Your task to perform on an android device: turn pop-ups off in chrome Image 0: 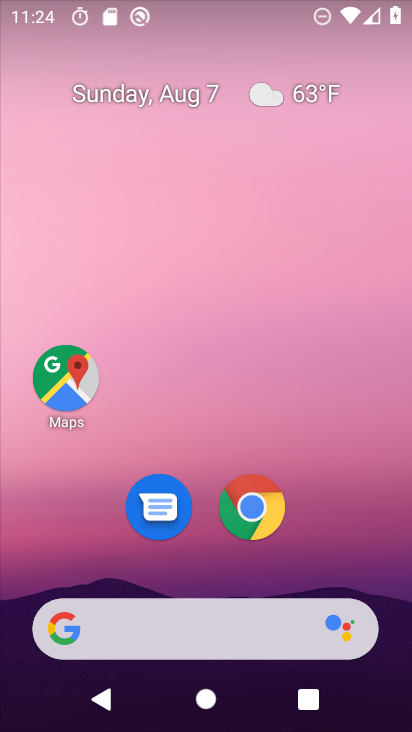
Step 0: drag from (375, 507) to (286, 53)
Your task to perform on an android device: turn pop-ups off in chrome Image 1: 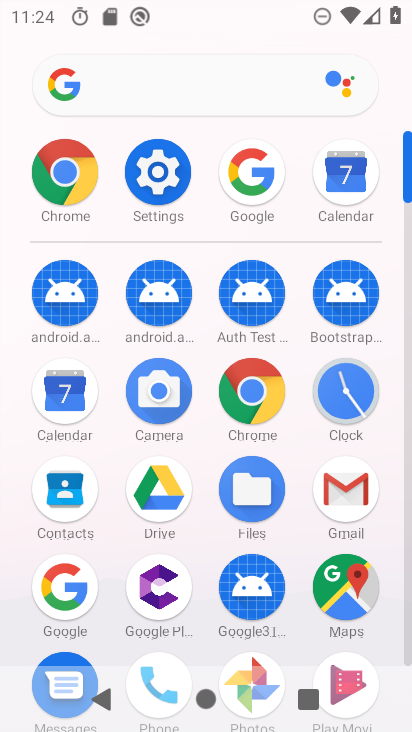
Step 1: click (255, 390)
Your task to perform on an android device: turn pop-ups off in chrome Image 2: 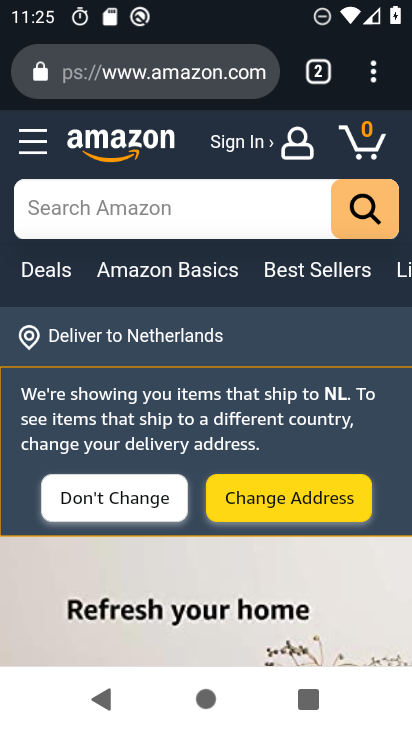
Step 2: drag from (379, 53) to (234, 476)
Your task to perform on an android device: turn pop-ups off in chrome Image 3: 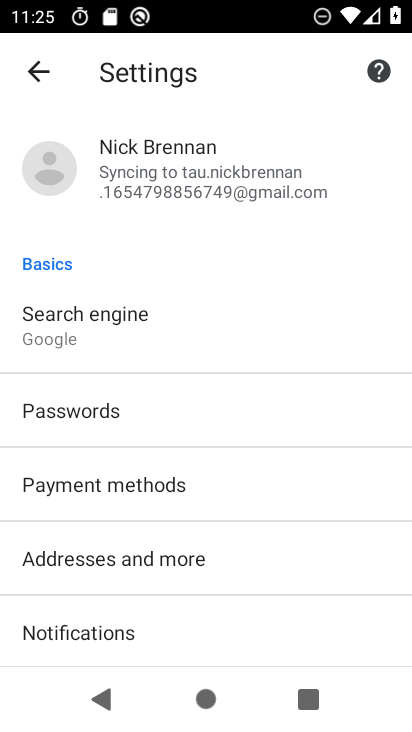
Step 3: drag from (266, 543) to (358, 179)
Your task to perform on an android device: turn pop-ups off in chrome Image 4: 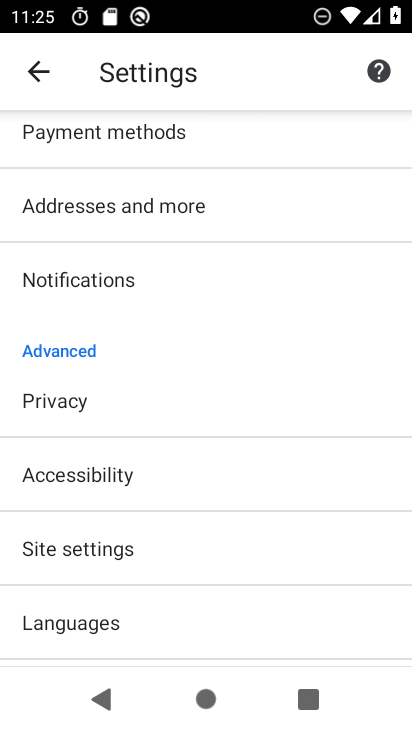
Step 4: click (148, 548)
Your task to perform on an android device: turn pop-ups off in chrome Image 5: 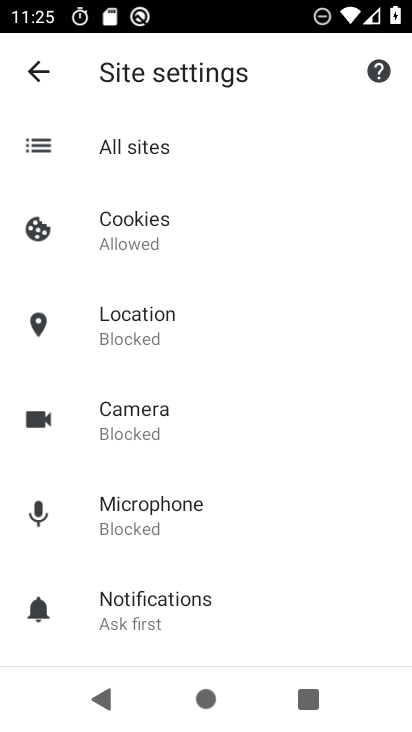
Step 5: drag from (149, 541) to (279, 207)
Your task to perform on an android device: turn pop-ups off in chrome Image 6: 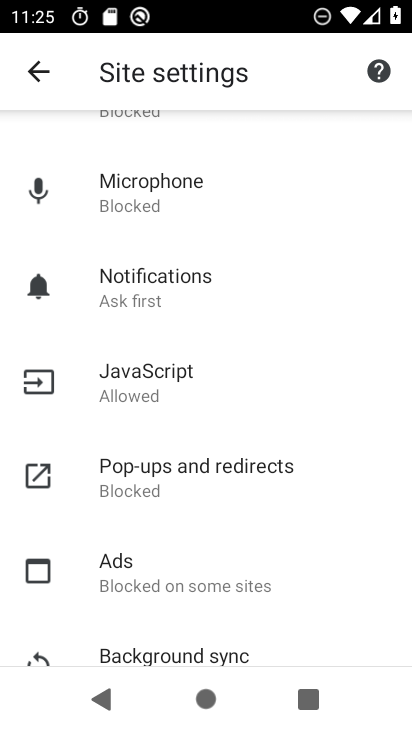
Step 6: click (109, 476)
Your task to perform on an android device: turn pop-ups off in chrome Image 7: 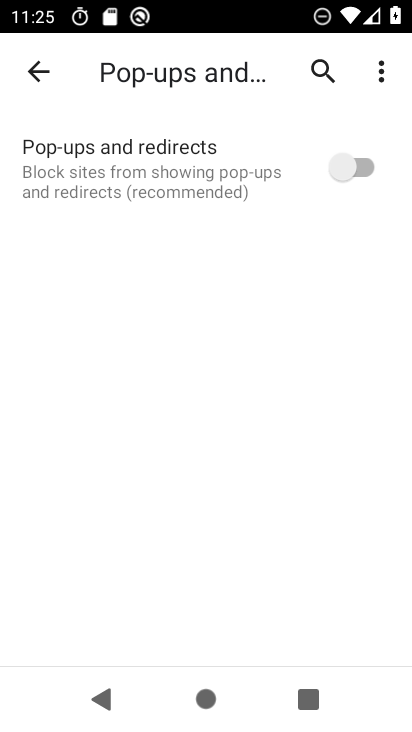
Step 7: task complete